Your task to perform on an android device: Play the latest video from the BBC Image 0: 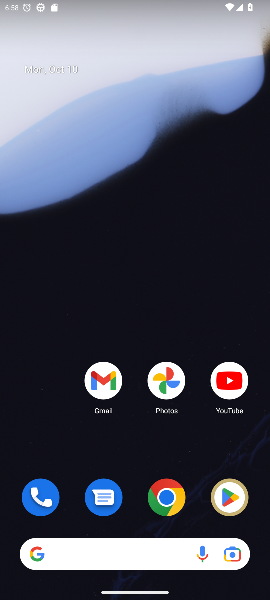
Step 0: drag from (71, 449) to (72, 150)
Your task to perform on an android device: Play the latest video from the BBC Image 1: 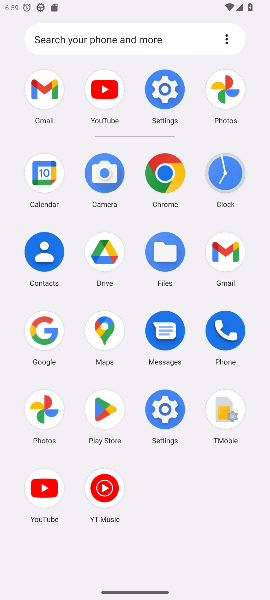
Step 1: click (42, 319)
Your task to perform on an android device: Play the latest video from the BBC Image 2: 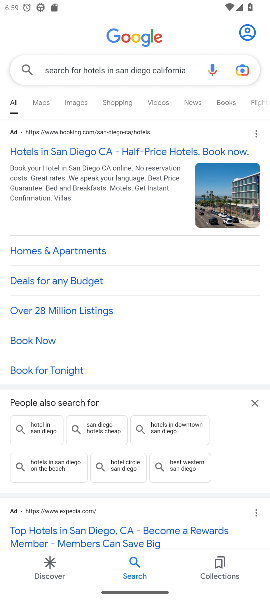
Step 2: click (168, 67)
Your task to perform on an android device: Play the latest video from the BBC Image 3: 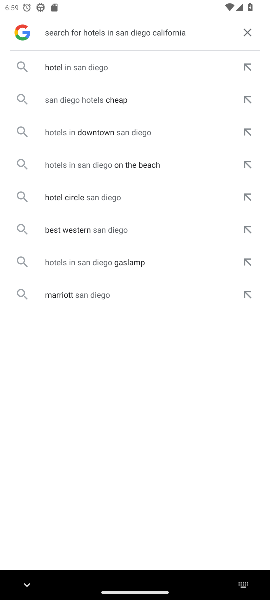
Step 3: click (249, 29)
Your task to perform on an android device: Play the latest video from the BBC Image 4: 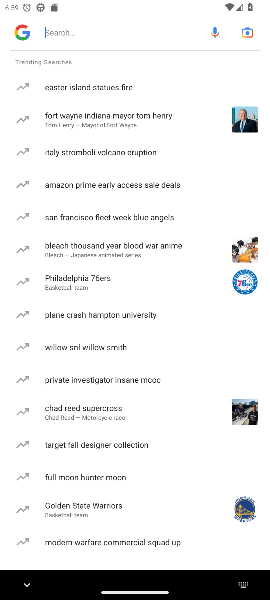
Step 4: click (99, 28)
Your task to perform on an android device: Play the latest video from the BBC Image 5: 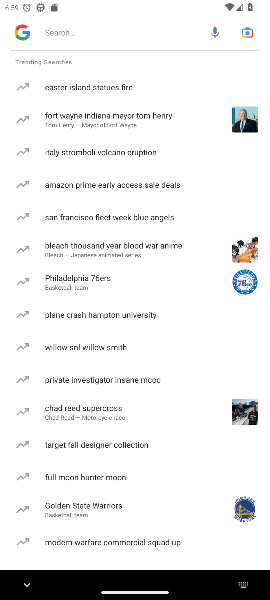
Step 5: type "Play the latest video from the BBC "
Your task to perform on an android device: Play the latest video from the BBC Image 6: 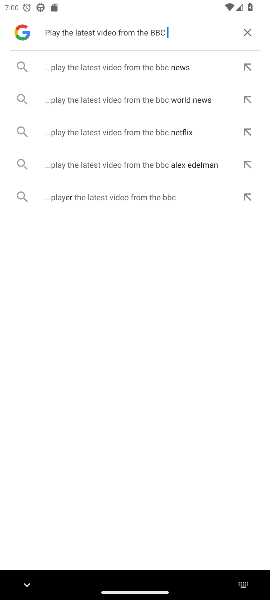
Step 6: click (104, 64)
Your task to perform on an android device: Play the latest video from the BBC Image 7: 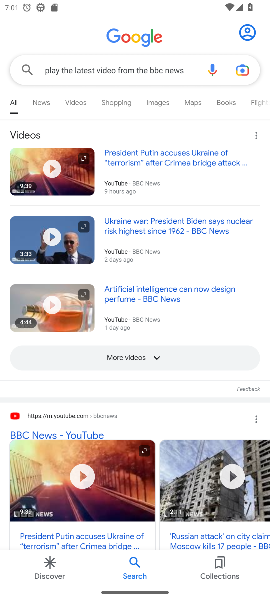
Step 7: task complete